Your task to perform on an android device: What's on my calendar tomorrow? Image 0: 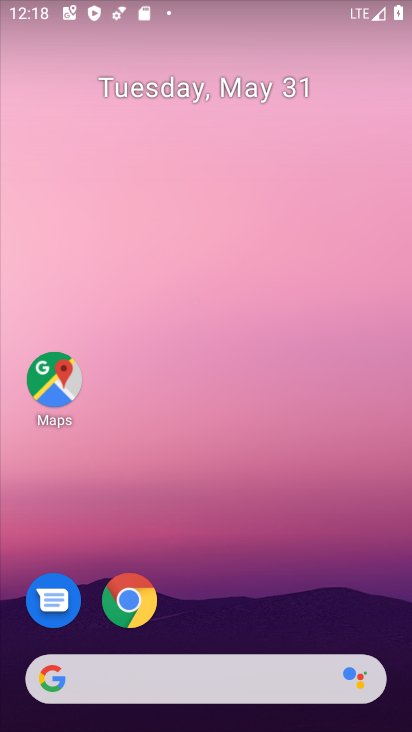
Step 0: drag from (197, 726) to (186, 608)
Your task to perform on an android device: What's on my calendar tomorrow? Image 1: 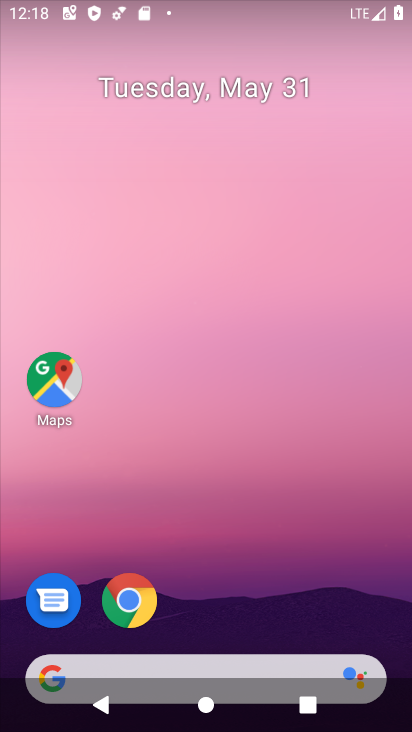
Step 1: click (182, 156)
Your task to perform on an android device: What's on my calendar tomorrow? Image 2: 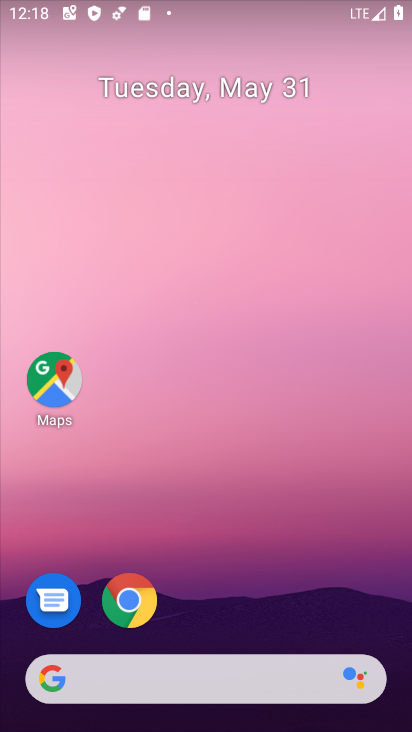
Step 2: drag from (227, 699) to (227, 619)
Your task to perform on an android device: What's on my calendar tomorrow? Image 3: 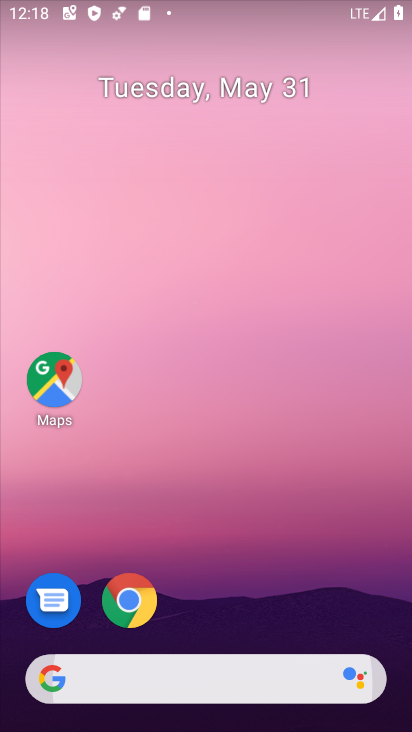
Step 3: drag from (227, 276) to (230, 11)
Your task to perform on an android device: What's on my calendar tomorrow? Image 4: 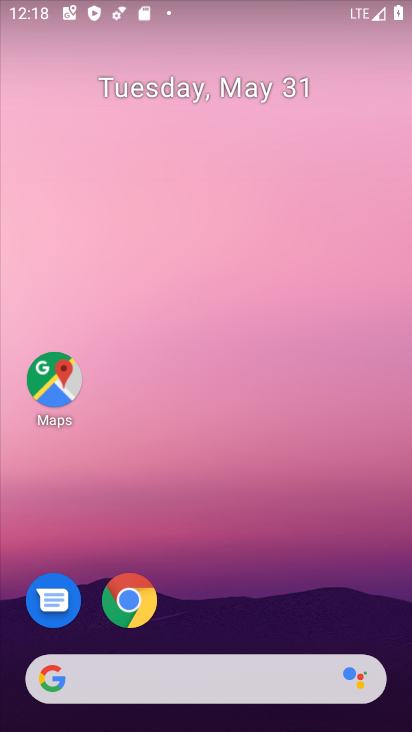
Step 4: drag from (239, 724) to (242, 9)
Your task to perform on an android device: What's on my calendar tomorrow? Image 5: 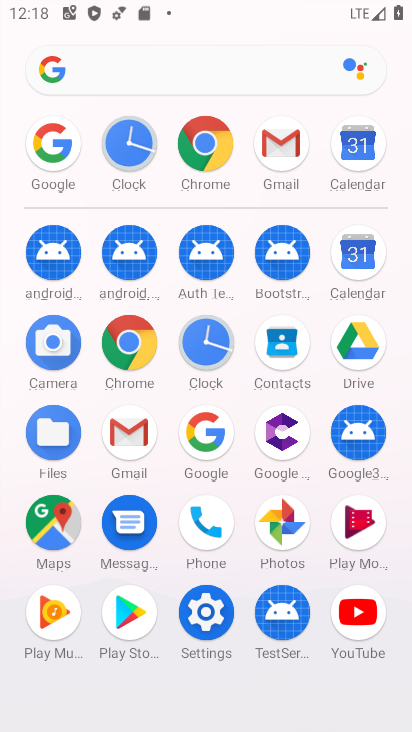
Step 5: click (354, 263)
Your task to perform on an android device: What's on my calendar tomorrow? Image 6: 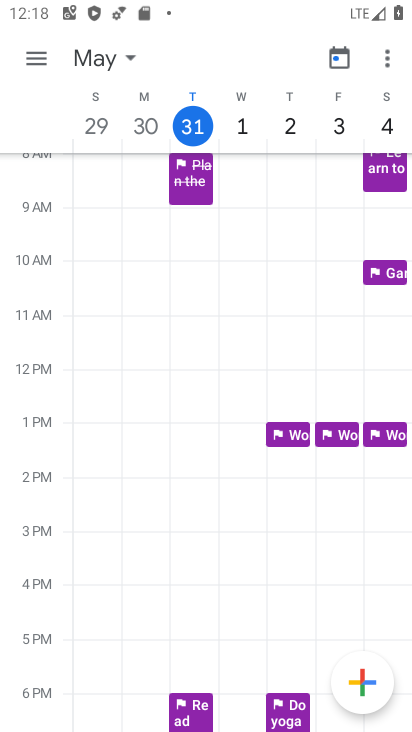
Step 6: click (243, 125)
Your task to perform on an android device: What's on my calendar tomorrow? Image 7: 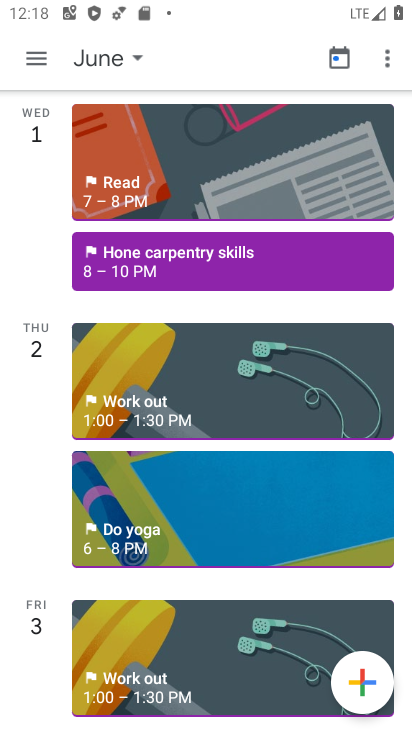
Step 7: task complete